Your task to perform on an android device: Open location settings Image 0: 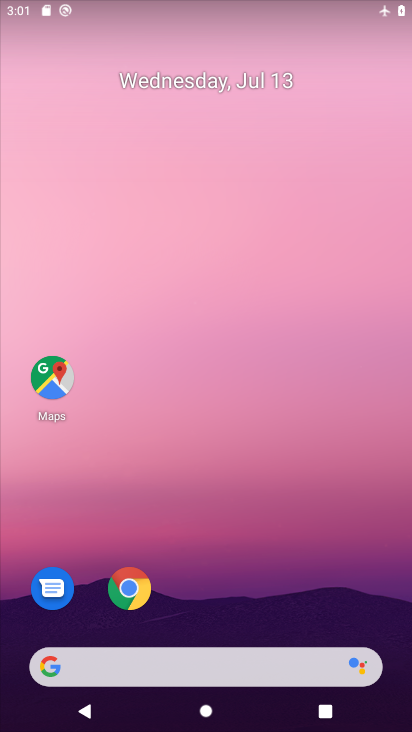
Step 0: drag from (199, 623) to (153, 202)
Your task to perform on an android device: Open location settings Image 1: 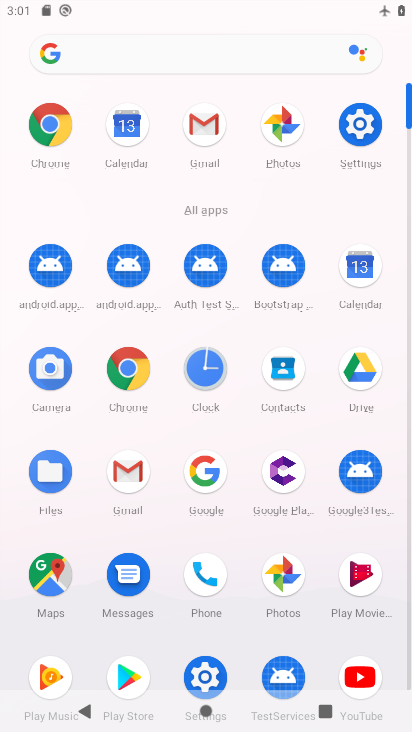
Step 1: click (375, 107)
Your task to perform on an android device: Open location settings Image 2: 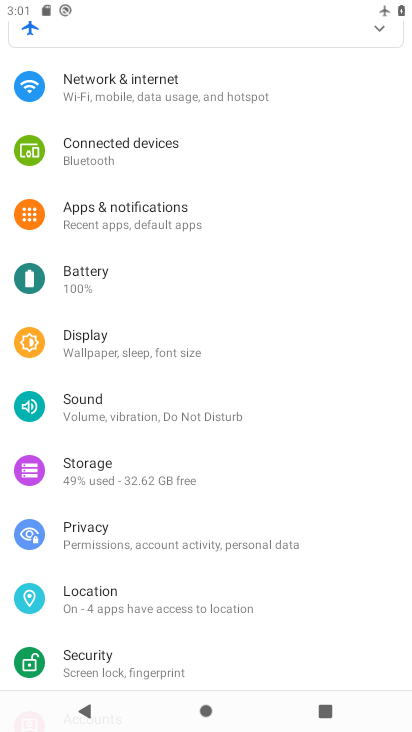
Step 2: click (150, 601)
Your task to perform on an android device: Open location settings Image 3: 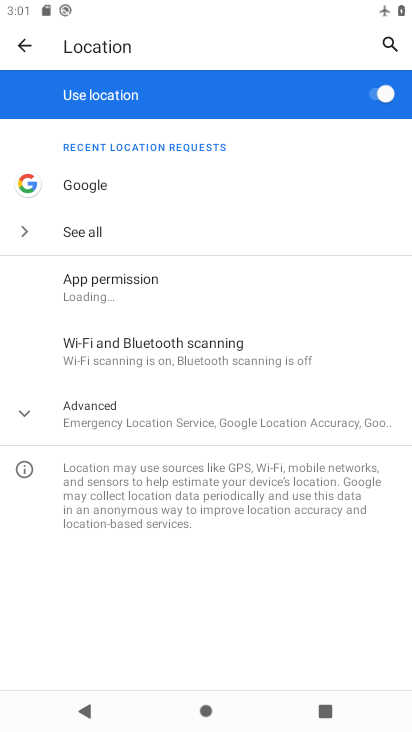
Step 3: click (114, 406)
Your task to perform on an android device: Open location settings Image 4: 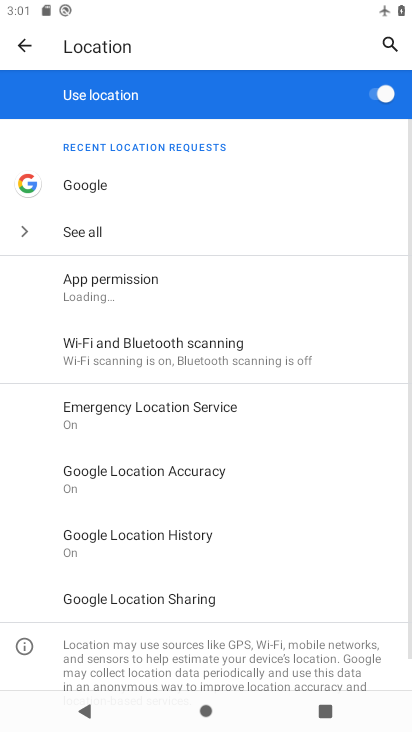
Step 4: task complete